Your task to perform on an android device: Go to notification settings Image 0: 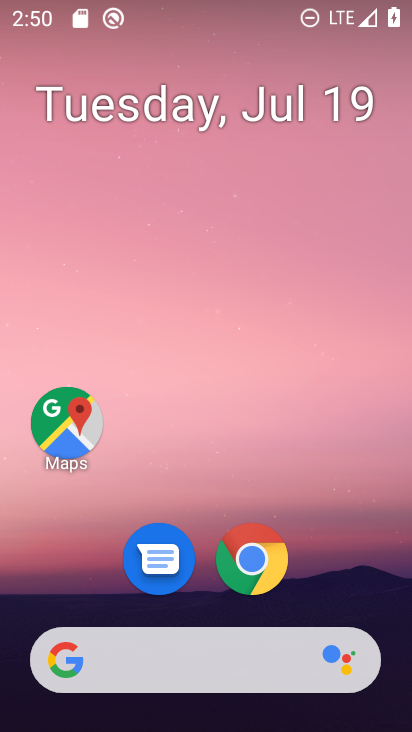
Step 0: drag from (186, 685) to (207, 150)
Your task to perform on an android device: Go to notification settings Image 1: 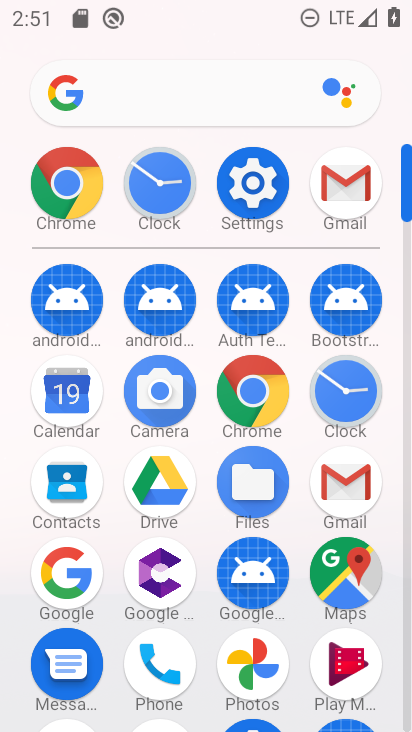
Step 1: click (250, 159)
Your task to perform on an android device: Go to notification settings Image 2: 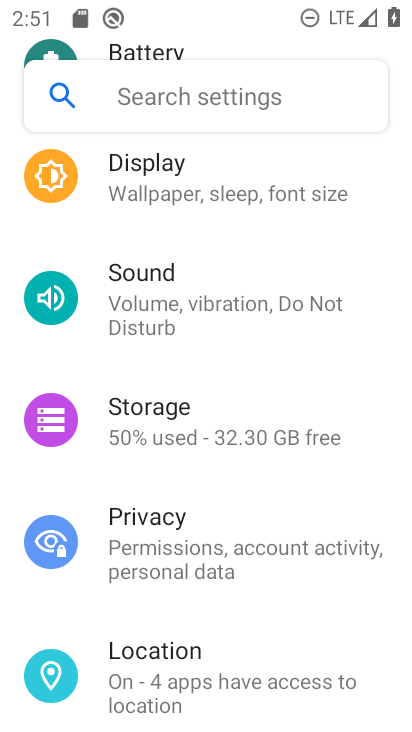
Step 2: drag from (190, 261) to (127, 715)
Your task to perform on an android device: Go to notification settings Image 3: 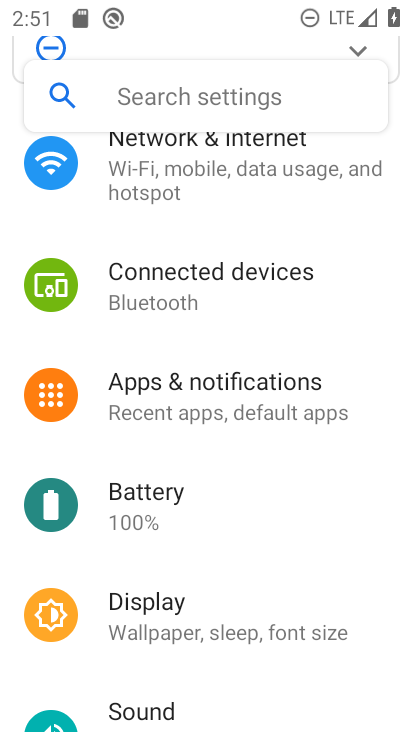
Step 3: click (201, 422)
Your task to perform on an android device: Go to notification settings Image 4: 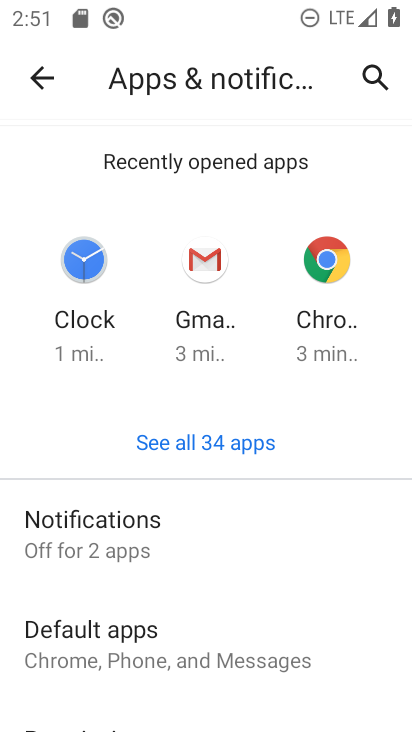
Step 4: click (138, 530)
Your task to perform on an android device: Go to notification settings Image 5: 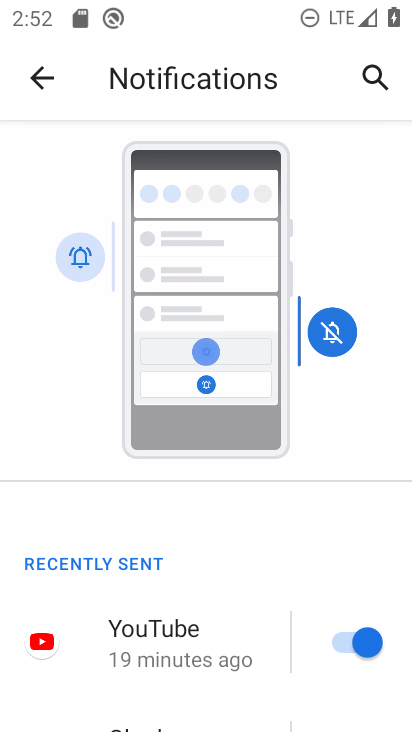
Step 5: task complete